Your task to perform on an android device: find which apps use the phone's location Image 0: 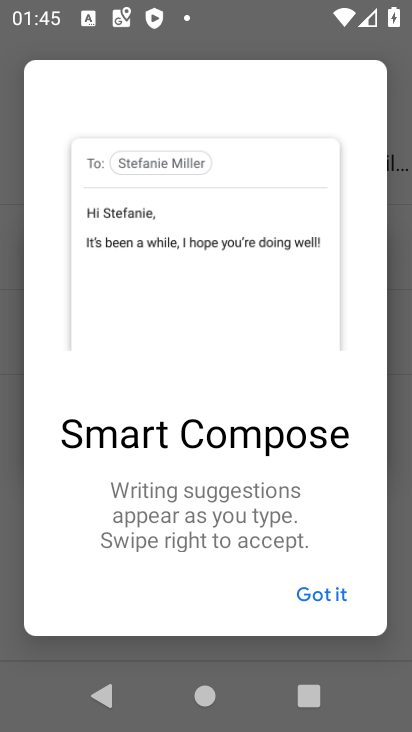
Step 0: press home button
Your task to perform on an android device: find which apps use the phone's location Image 1: 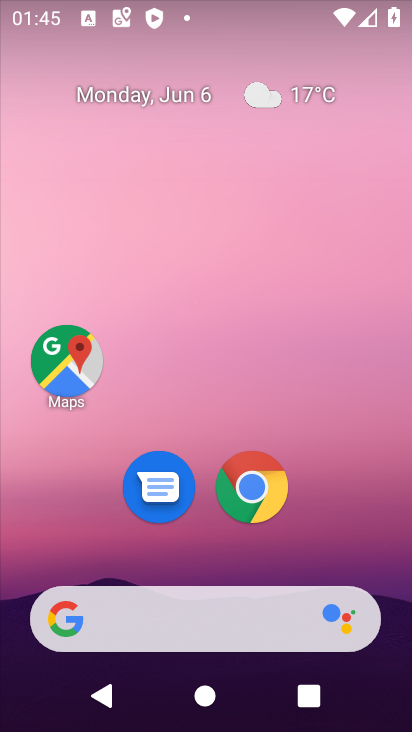
Step 1: drag from (379, 517) to (308, 126)
Your task to perform on an android device: find which apps use the phone's location Image 2: 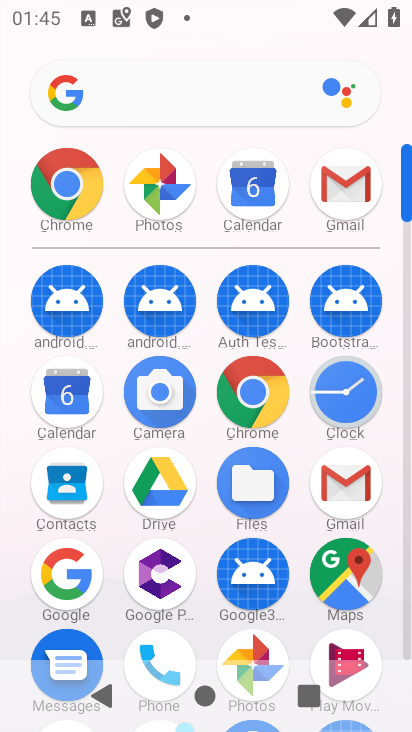
Step 2: click (408, 640)
Your task to perform on an android device: find which apps use the phone's location Image 3: 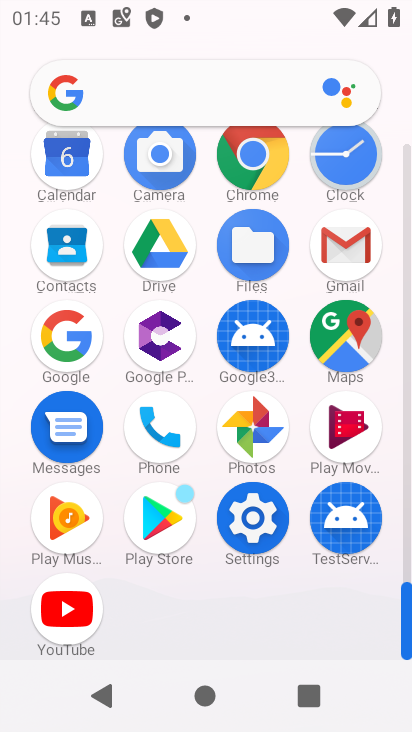
Step 3: click (252, 517)
Your task to perform on an android device: find which apps use the phone's location Image 4: 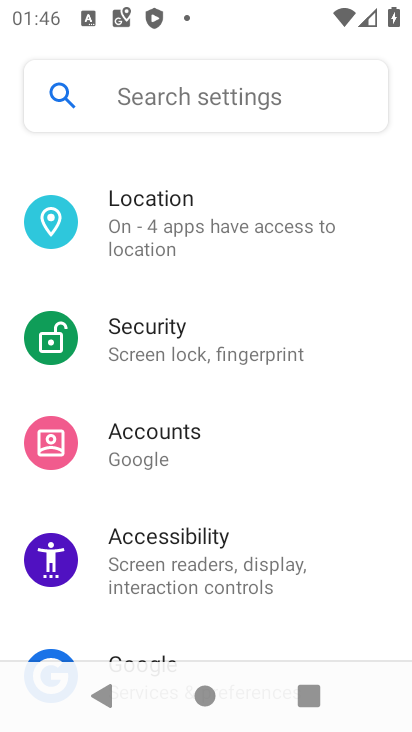
Step 4: click (163, 218)
Your task to perform on an android device: find which apps use the phone's location Image 5: 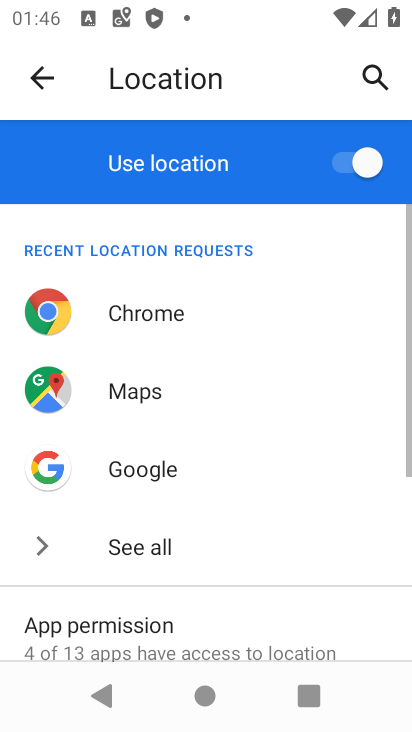
Step 5: drag from (269, 629) to (255, 292)
Your task to perform on an android device: find which apps use the phone's location Image 6: 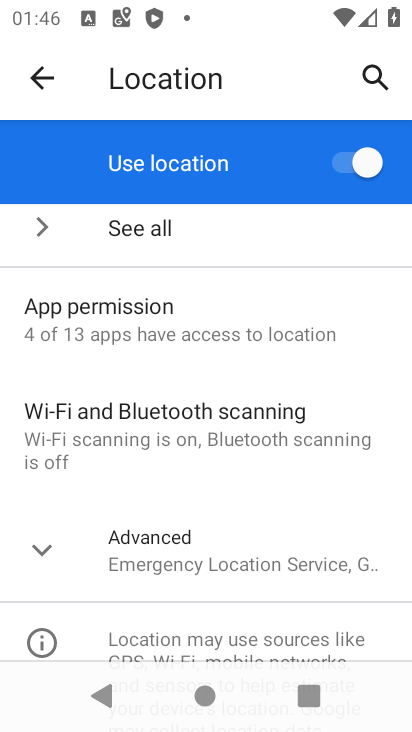
Step 6: click (75, 317)
Your task to perform on an android device: find which apps use the phone's location Image 7: 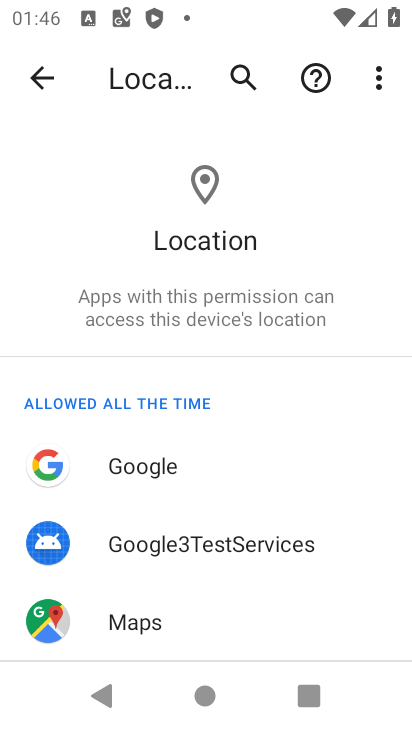
Step 7: drag from (241, 616) to (271, 133)
Your task to perform on an android device: find which apps use the phone's location Image 8: 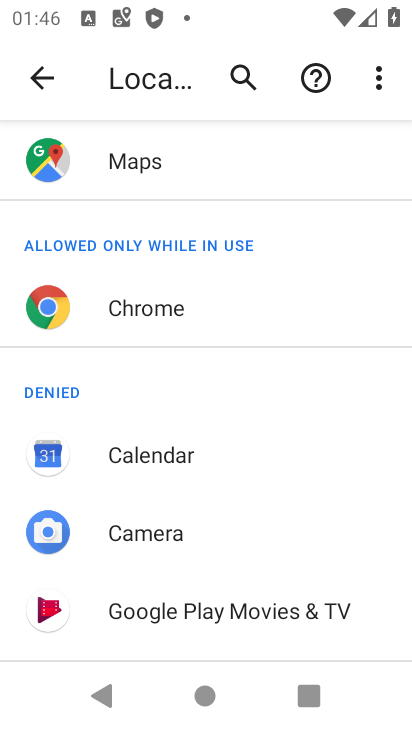
Step 8: drag from (307, 599) to (245, 153)
Your task to perform on an android device: find which apps use the phone's location Image 9: 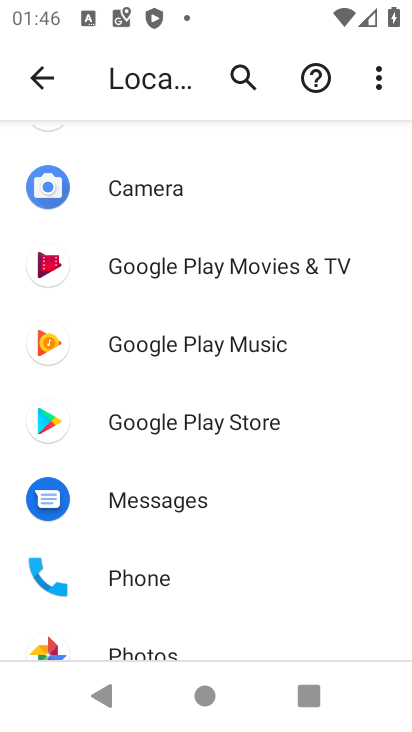
Step 9: drag from (262, 594) to (256, 234)
Your task to perform on an android device: find which apps use the phone's location Image 10: 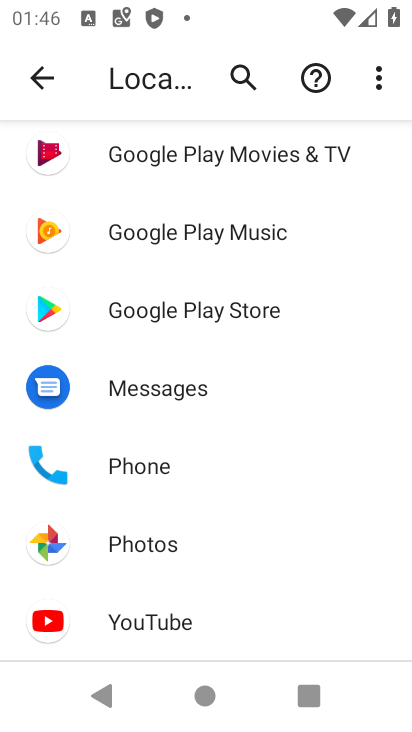
Step 10: click (156, 616)
Your task to perform on an android device: find which apps use the phone's location Image 11: 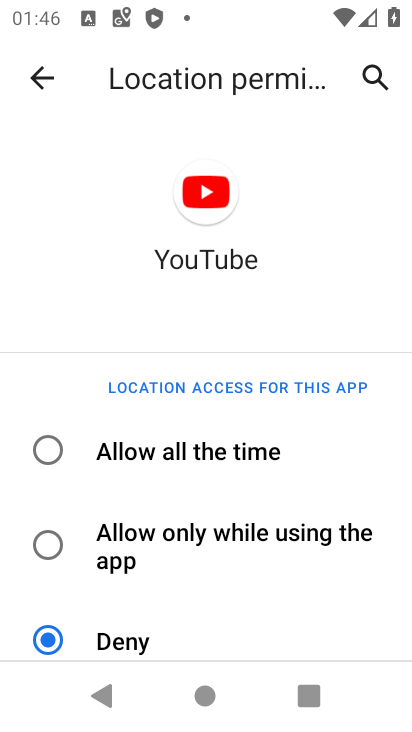
Step 11: task complete